Your task to perform on an android device: allow notifications from all sites in the chrome app Image 0: 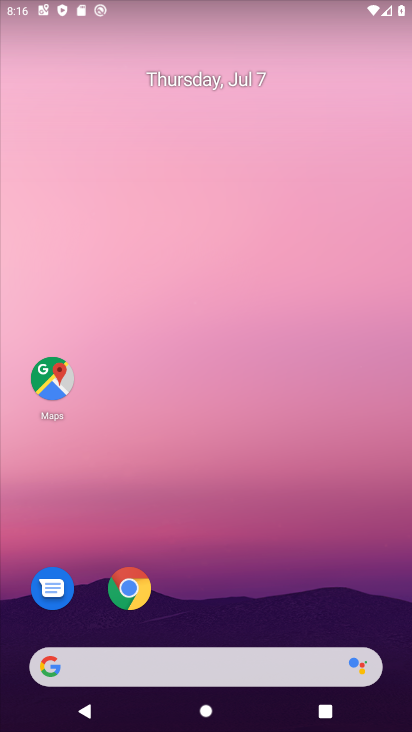
Step 0: click (133, 592)
Your task to perform on an android device: allow notifications from all sites in the chrome app Image 1: 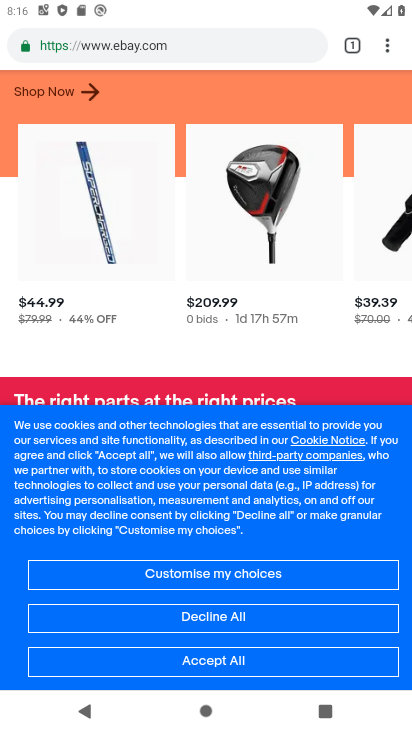
Step 1: drag from (387, 43) to (234, 552)
Your task to perform on an android device: allow notifications from all sites in the chrome app Image 2: 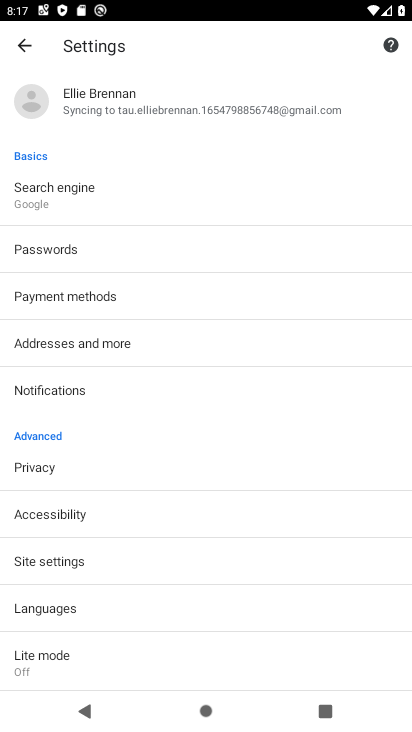
Step 2: click (123, 570)
Your task to perform on an android device: allow notifications from all sites in the chrome app Image 3: 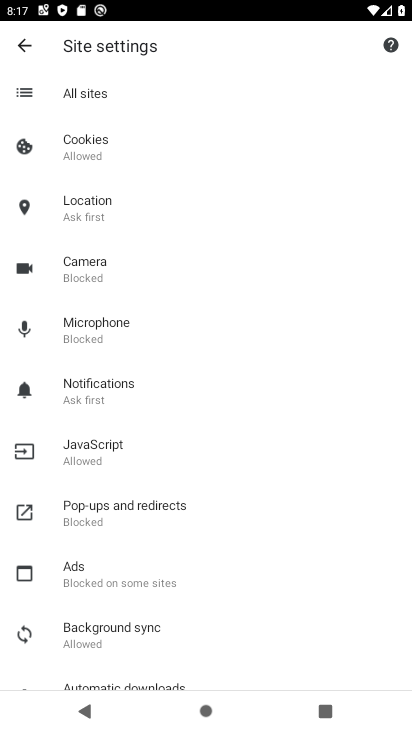
Step 3: click (109, 393)
Your task to perform on an android device: allow notifications from all sites in the chrome app Image 4: 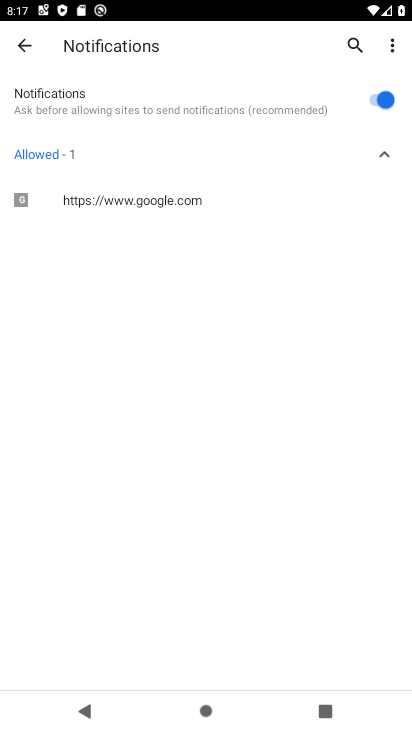
Step 4: task complete